Your task to perform on an android device: Do I have any events today? Image 0: 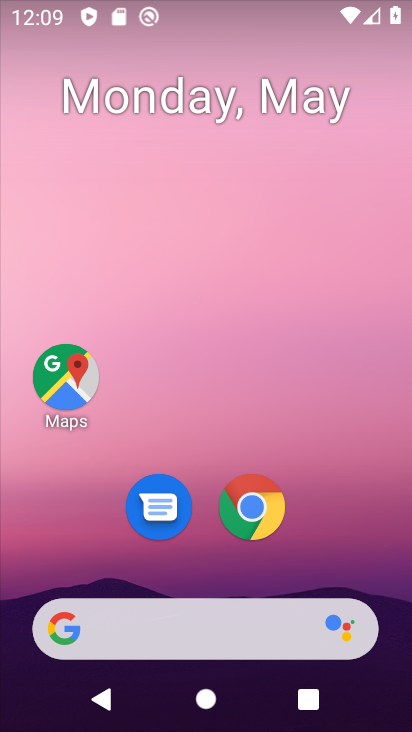
Step 0: drag from (221, 726) to (221, 30)
Your task to perform on an android device: Do I have any events today? Image 1: 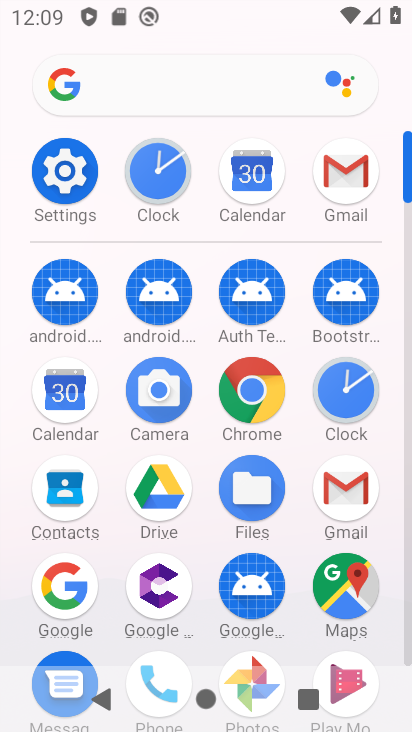
Step 1: click (60, 398)
Your task to perform on an android device: Do I have any events today? Image 2: 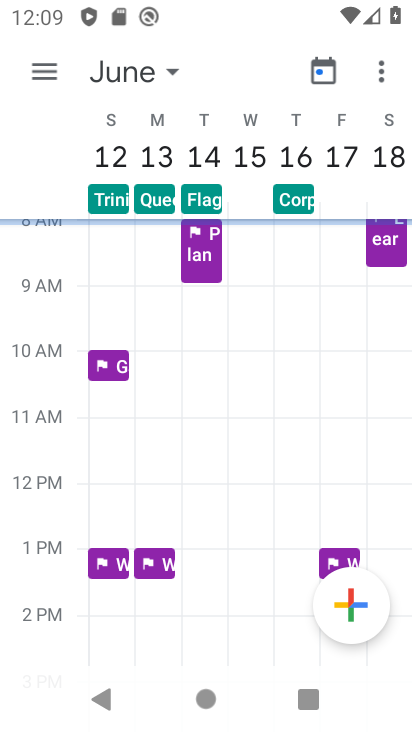
Step 2: click (158, 69)
Your task to perform on an android device: Do I have any events today? Image 3: 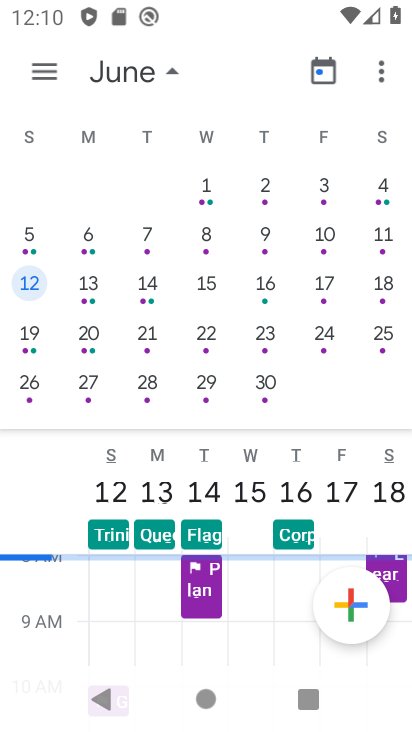
Step 3: drag from (45, 294) to (340, 255)
Your task to perform on an android device: Do I have any events today? Image 4: 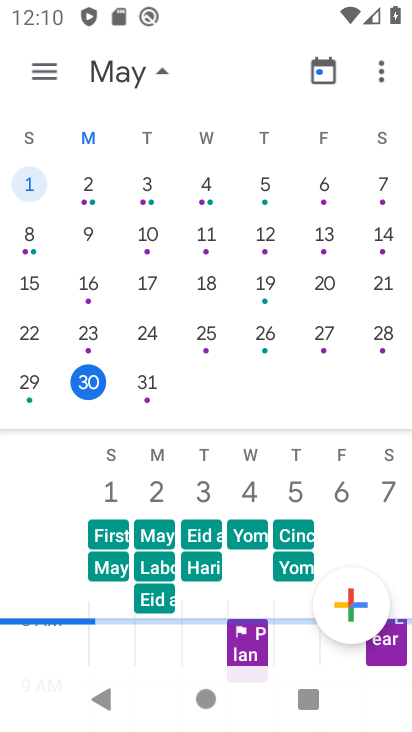
Step 4: click (88, 377)
Your task to perform on an android device: Do I have any events today? Image 5: 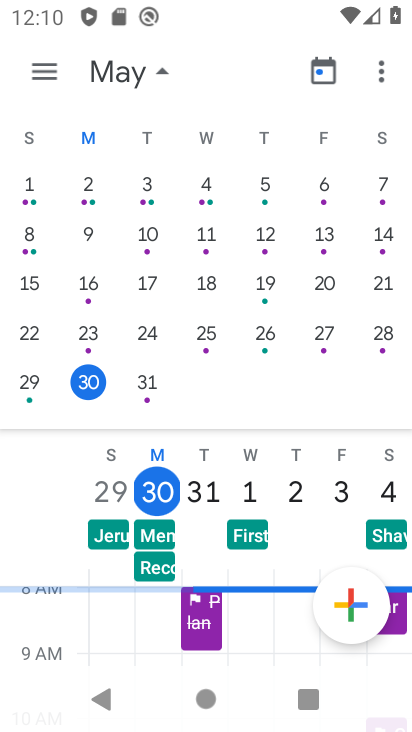
Step 5: click (160, 66)
Your task to perform on an android device: Do I have any events today? Image 6: 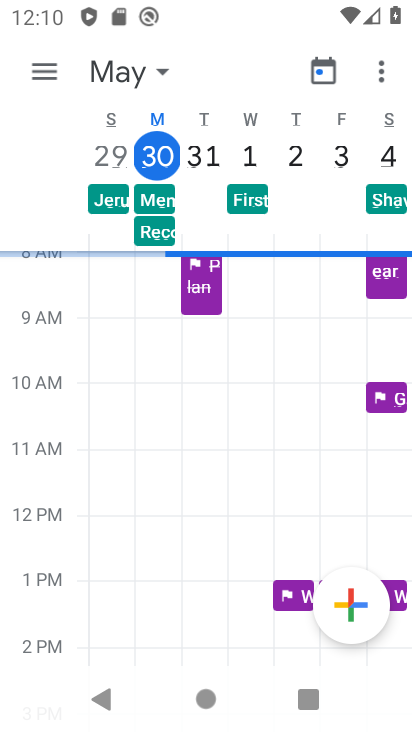
Step 6: task complete